Your task to perform on an android device: turn off sleep mode Image 0: 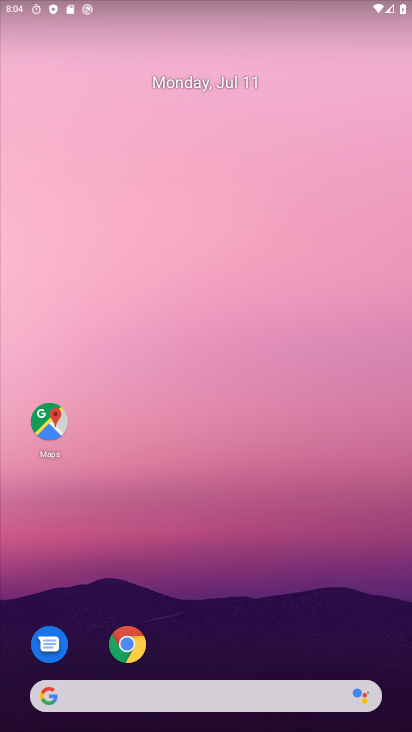
Step 0: drag from (142, 703) to (262, 59)
Your task to perform on an android device: turn off sleep mode Image 1: 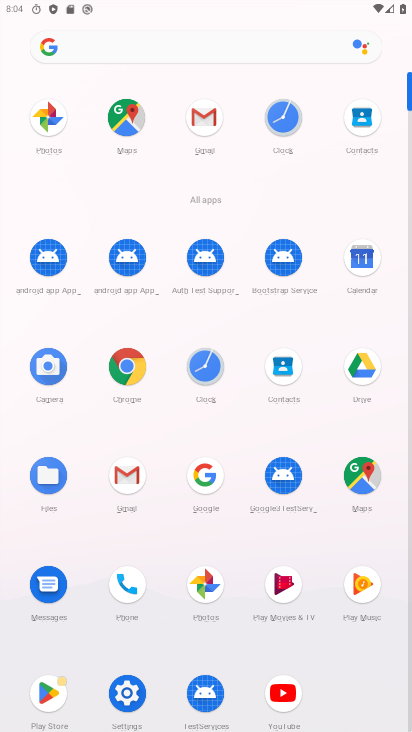
Step 1: click (130, 691)
Your task to perform on an android device: turn off sleep mode Image 2: 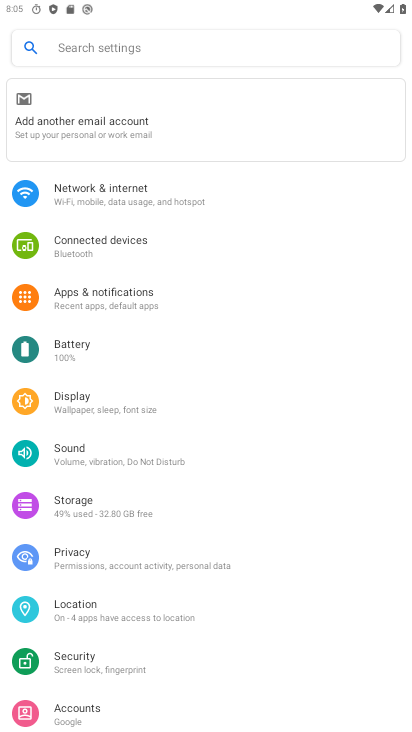
Step 2: click (123, 411)
Your task to perform on an android device: turn off sleep mode Image 3: 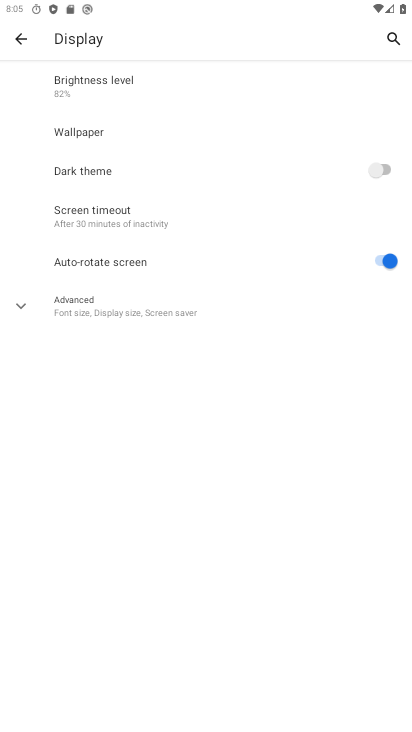
Step 3: click (130, 316)
Your task to perform on an android device: turn off sleep mode Image 4: 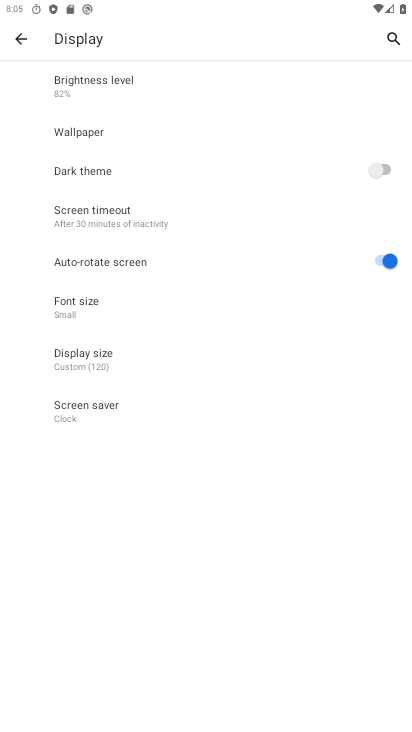
Step 4: task complete